Your task to perform on an android device: Search for lg ultragear on target.com, select the first entry, add it to the cart, then select checkout. Image 0: 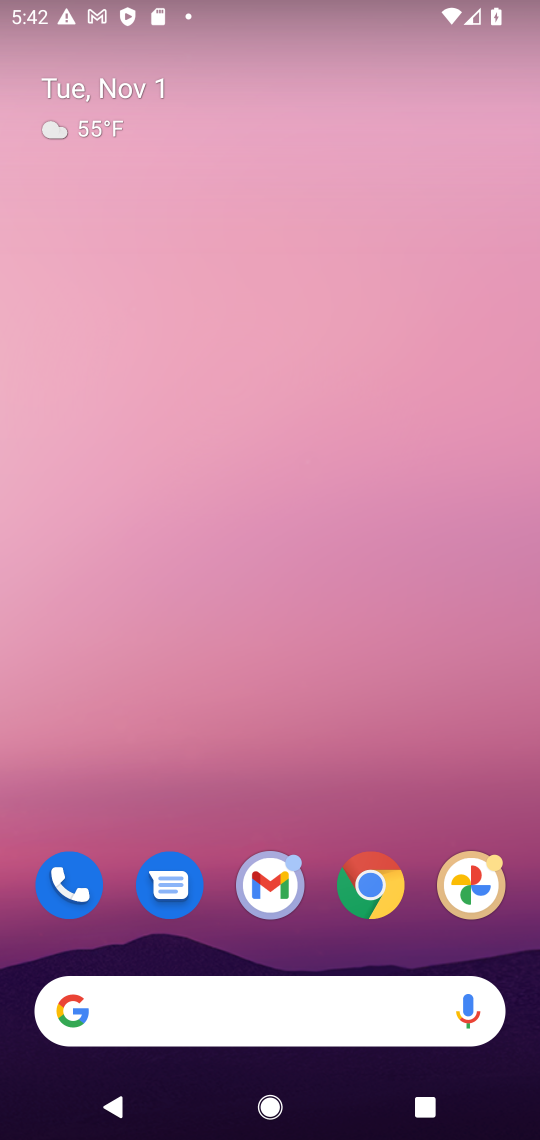
Step 0: click (370, 880)
Your task to perform on an android device: Search for lg ultragear on target.com, select the first entry, add it to the cart, then select checkout. Image 1: 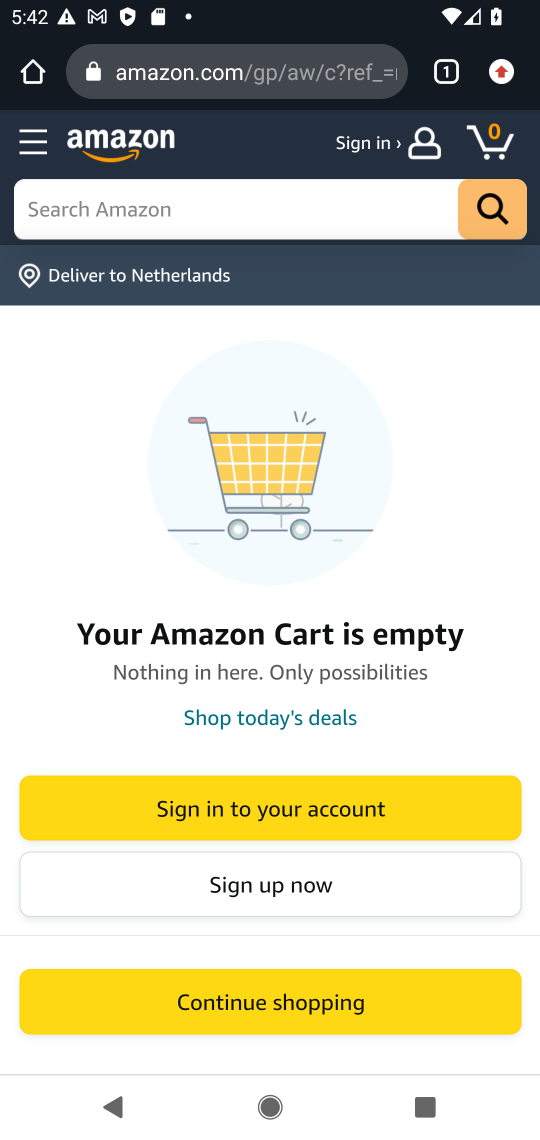
Step 1: click (258, 46)
Your task to perform on an android device: Search for lg ultragear on target.com, select the first entry, add it to the cart, then select checkout. Image 2: 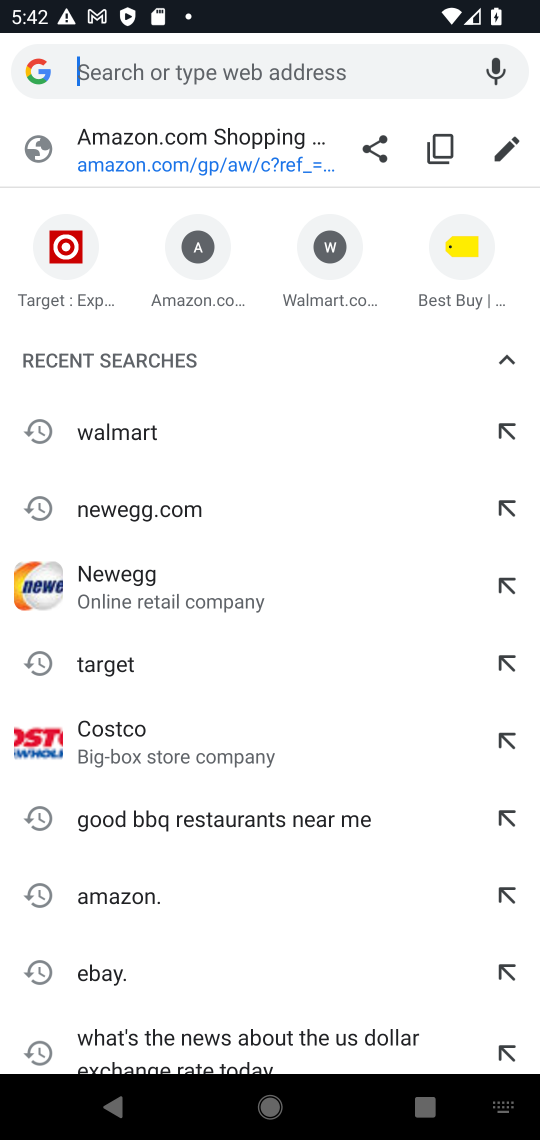
Step 2: type "target.com"
Your task to perform on an android device: Search for lg ultragear on target.com, select the first entry, add it to the cart, then select checkout. Image 3: 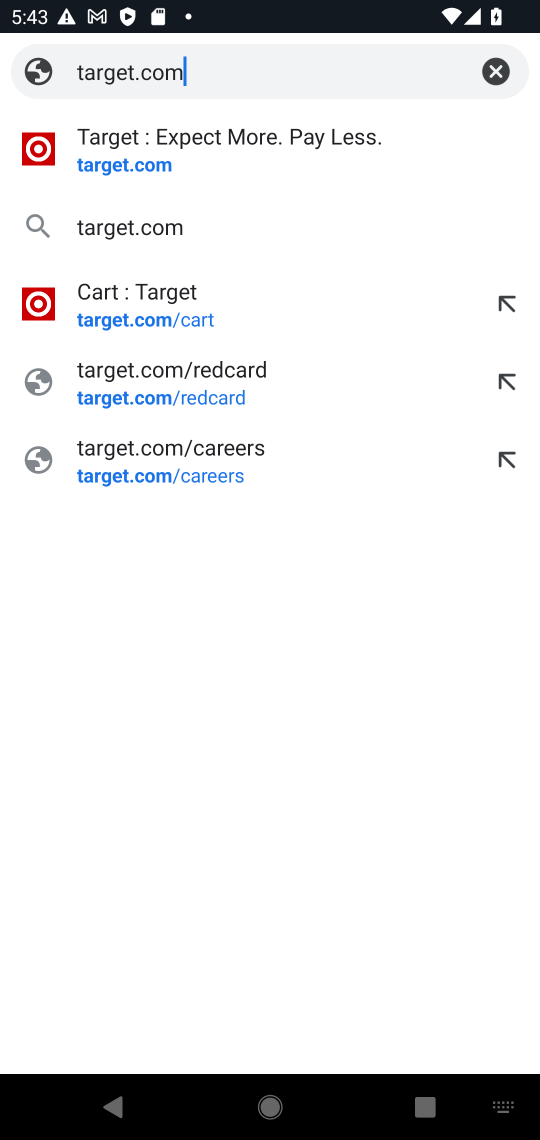
Step 3: click (108, 131)
Your task to perform on an android device: Search for lg ultragear on target.com, select the first entry, add it to the cart, then select checkout. Image 4: 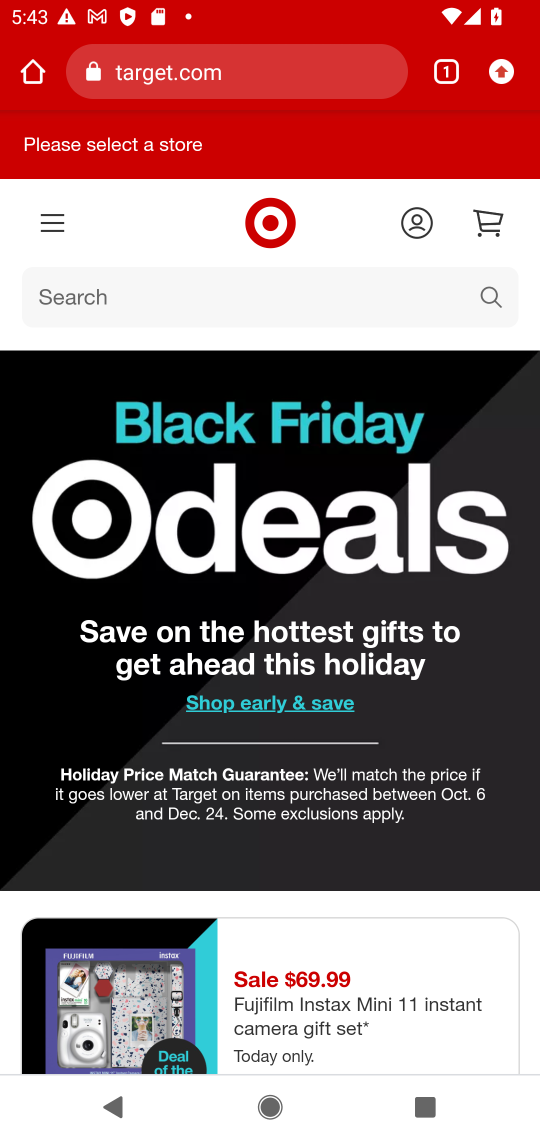
Step 4: click (133, 290)
Your task to perform on an android device: Search for lg ultragear on target.com, select the first entry, add it to the cart, then select checkout. Image 5: 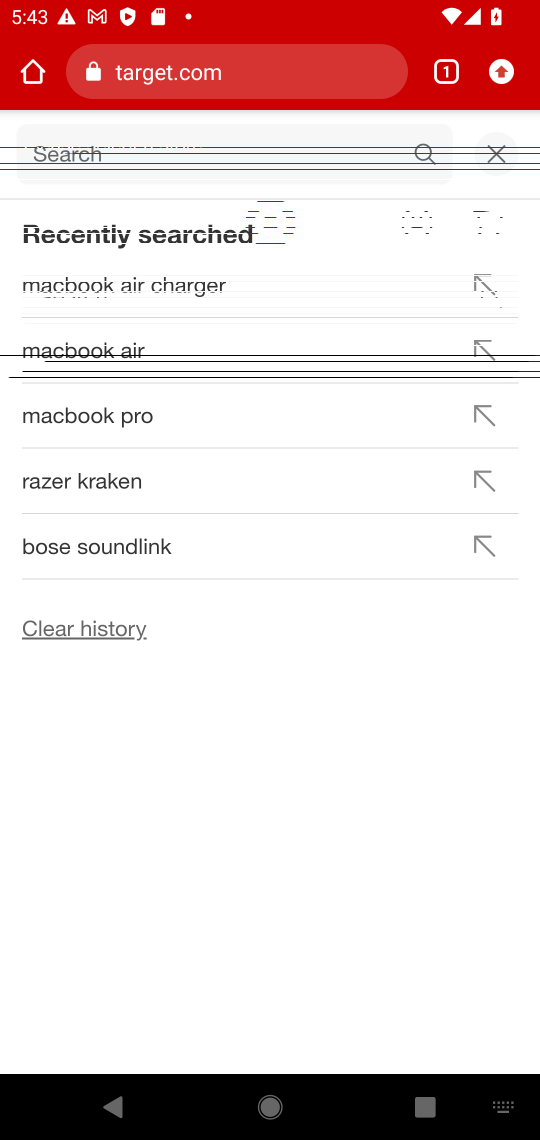
Step 5: type "lg ultragear"
Your task to perform on an android device: Search for lg ultragear on target.com, select the first entry, add it to the cart, then select checkout. Image 6: 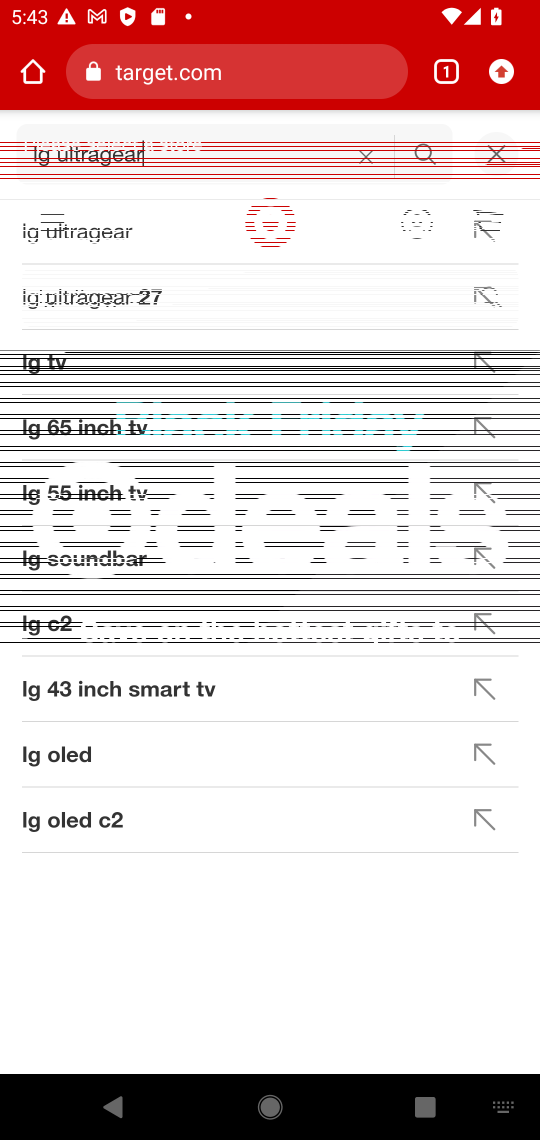
Step 6: click (79, 226)
Your task to perform on an android device: Search for lg ultragear on target.com, select the first entry, add it to the cart, then select checkout. Image 7: 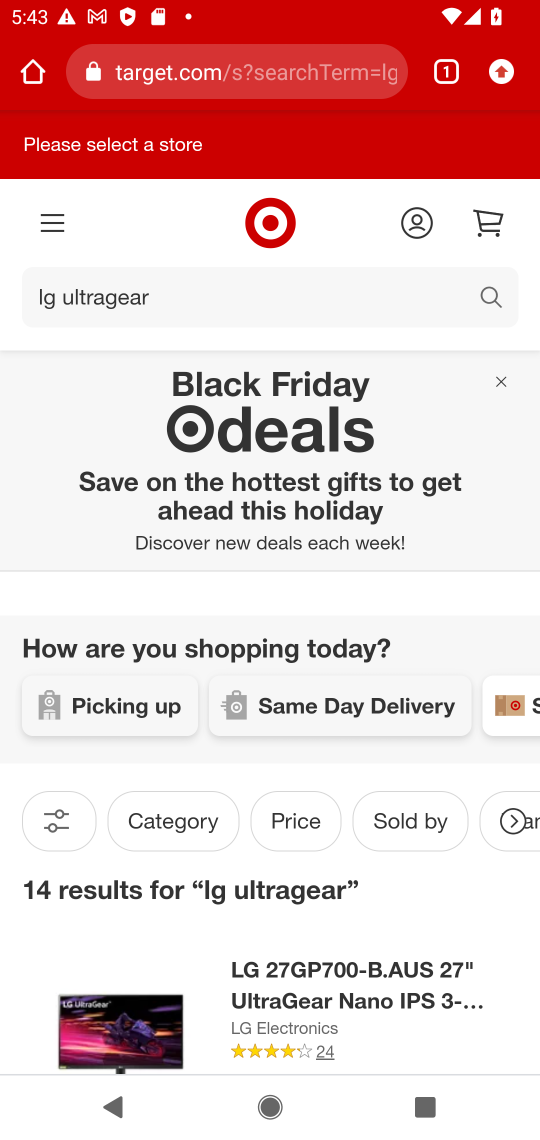
Step 7: drag from (302, 772) to (288, 188)
Your task to perform on an android device: Search for lg ultragear on target.com, select the first entry, add it to the cart, then select checkout. Image 8: 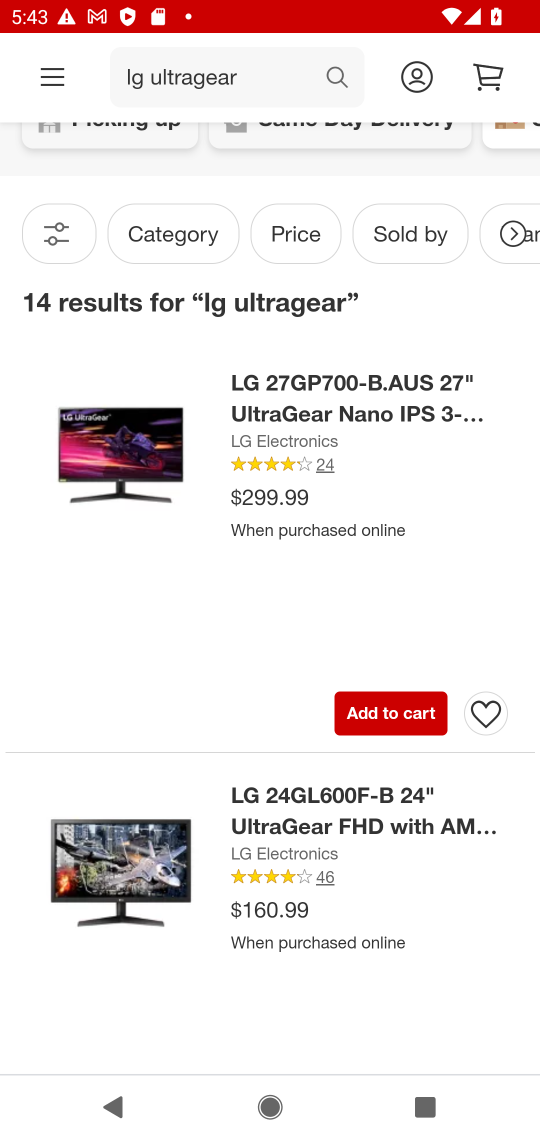
Step 8: click (299, 401)
Your task to perform on an android device: Search for lg ultragear on target.com, select the first entry, add it to the cart, then select checkout. Image 9: 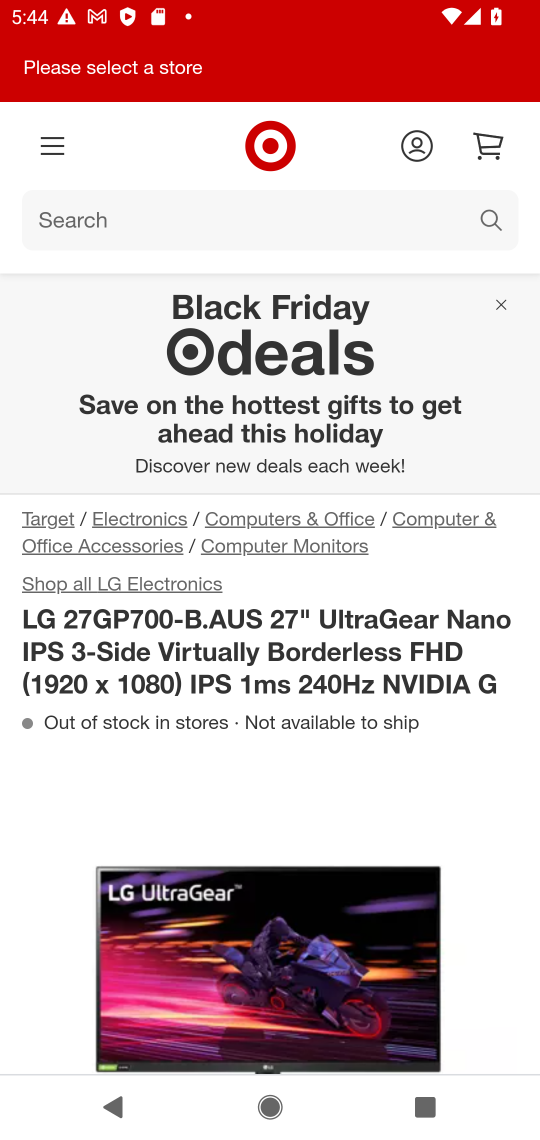
Step 9: drag from (326, 811) to (331, 154)
Your task to perform on an android device: Search for lg ultragear on target.com, select the first entry, add it to the cart, then select checkout. Image 10: 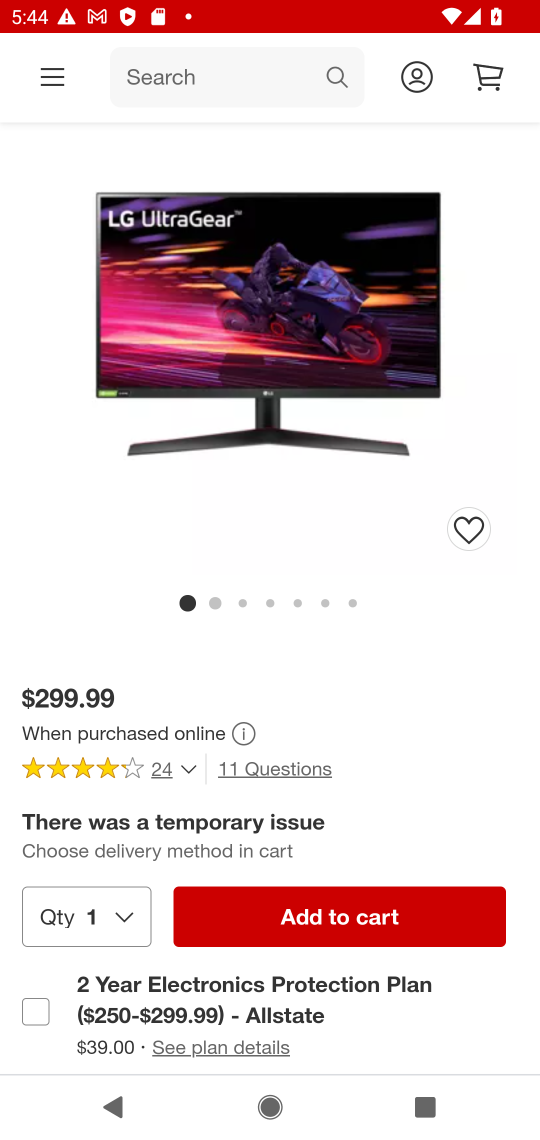
Step 10: drag from (335, 753) to (343, 449)
Your task to perform on an android device: Search for lg ultragear on target.com, select the first entry, add it to the cart, then select checkout. Image 11: 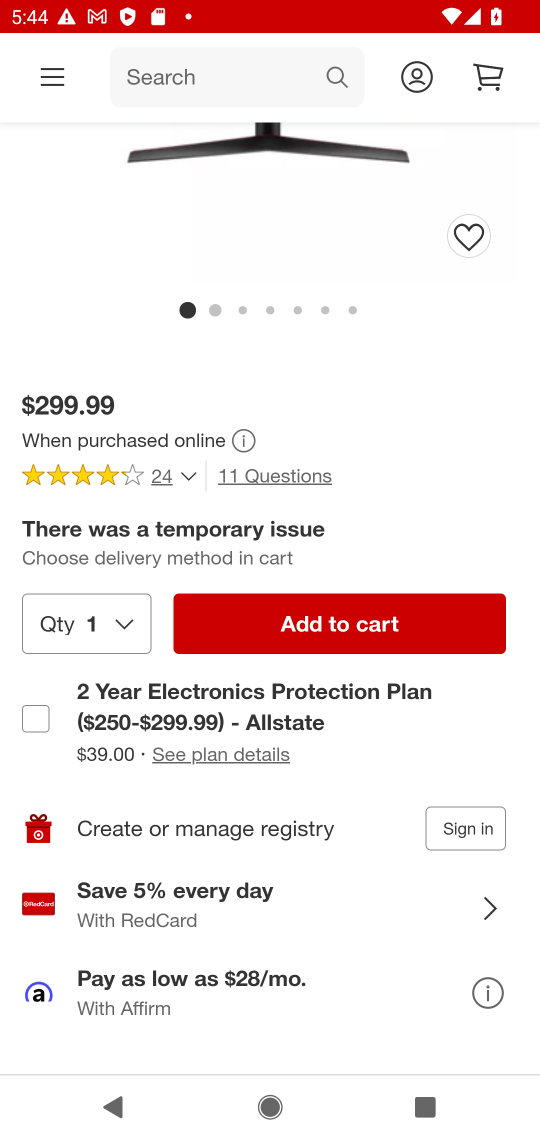
Step 11: click (327, 629)
Your task to perform on an android device: Search for lg ultragear on target.com, select the first entry, add it to the cart, then select checkout. Image 12: 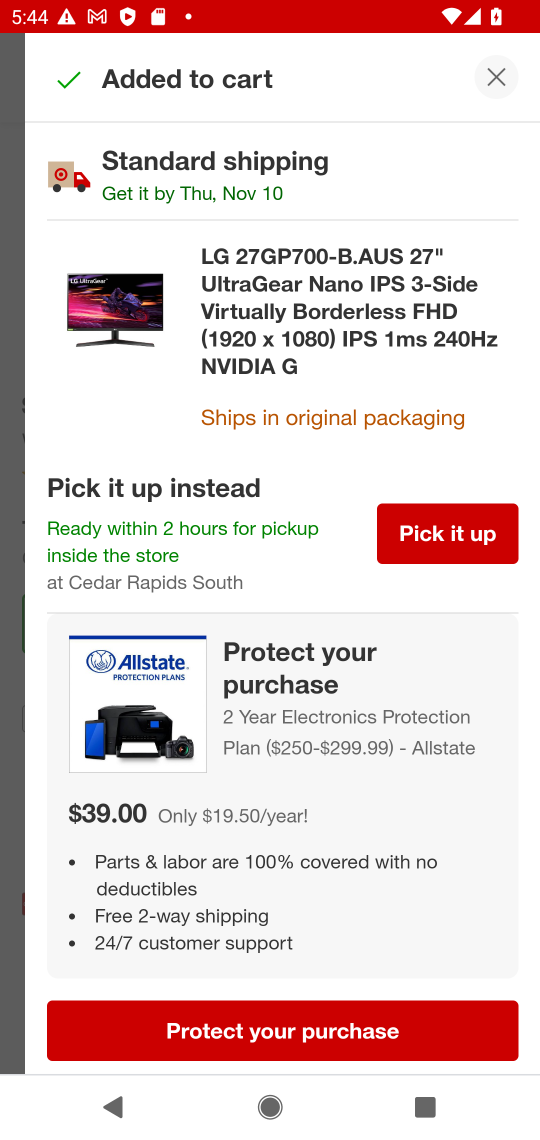
Step 12: drag from (387, 874) to (280, 1094)
Your task to perform on an android device: Search for lg ultragear on target.com, select the first entry, add it to the cart, then select checkout. Image 13: 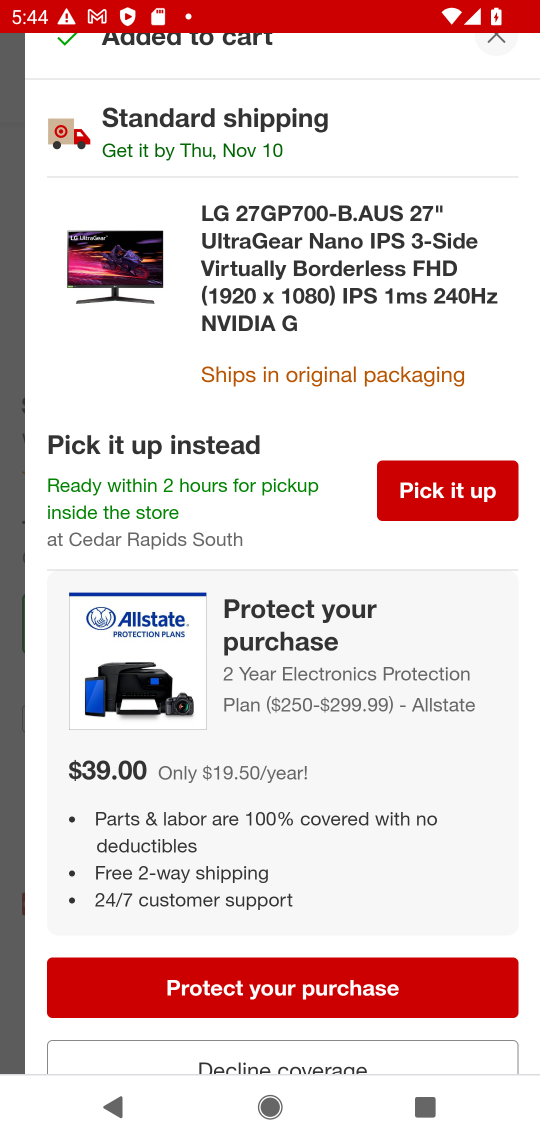
Step 13: drag from (309, 946) to (310, 309)
Your task to perform on an android device: Search for lg ultragear on target.com, select the first entry, add it to the cart, then select checkout. Image 14: 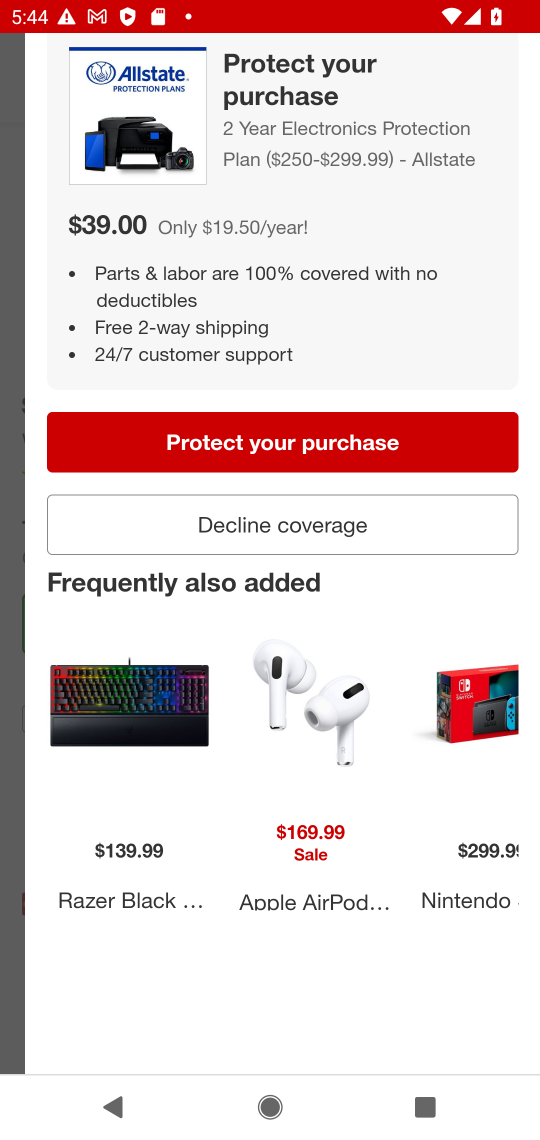
Step 14: drag from (314, 334) to (286, 790)
Your task to perform on an android device: Search for lg ultragear on target.com, select the first entry, add it to the cart, then select checkout. Image 15: 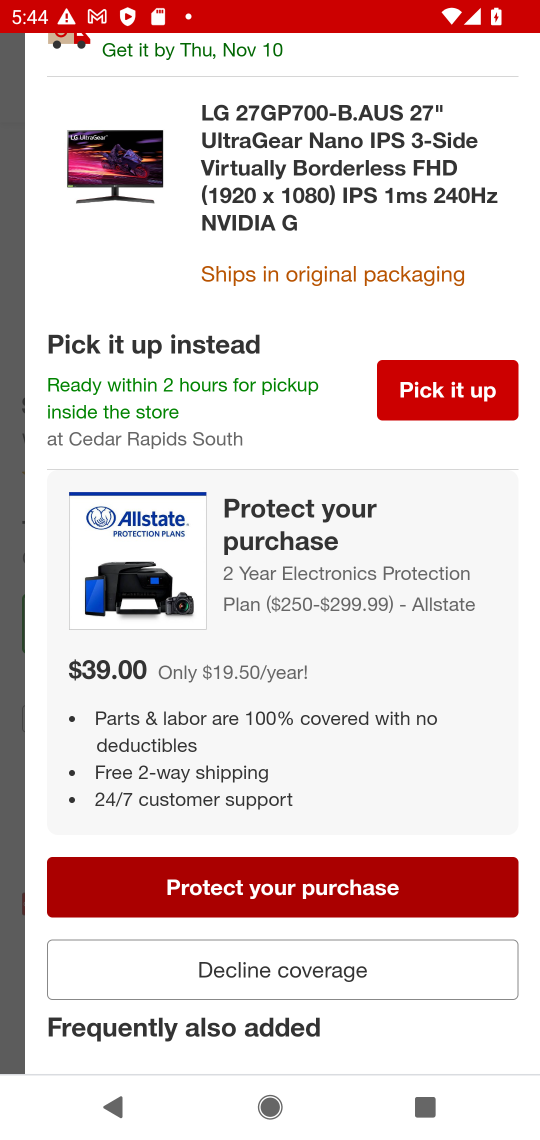
Step 15: drag from (310, 316) to (312, 681)
Your task to perform on an android device: Search for lg ultragear on target.com, select the first entry, add it to the cart, then select checkout. Image 16: 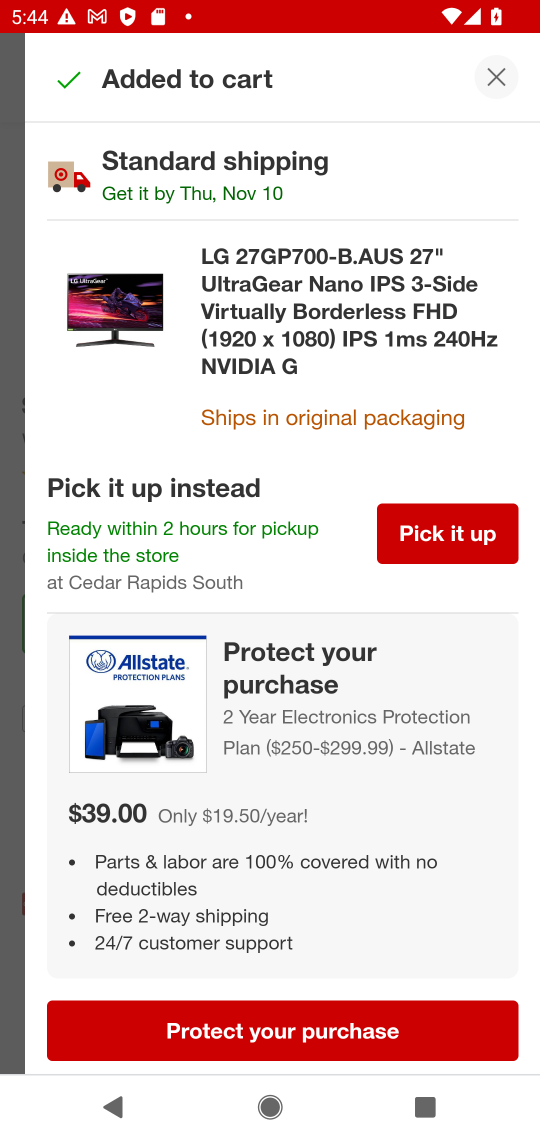
Step 16: click (455, 532)
Your task to perform on an android device: Search for lg ultragear on target.com, select the first entry, add it to the cart, then select checkout. Image 17: 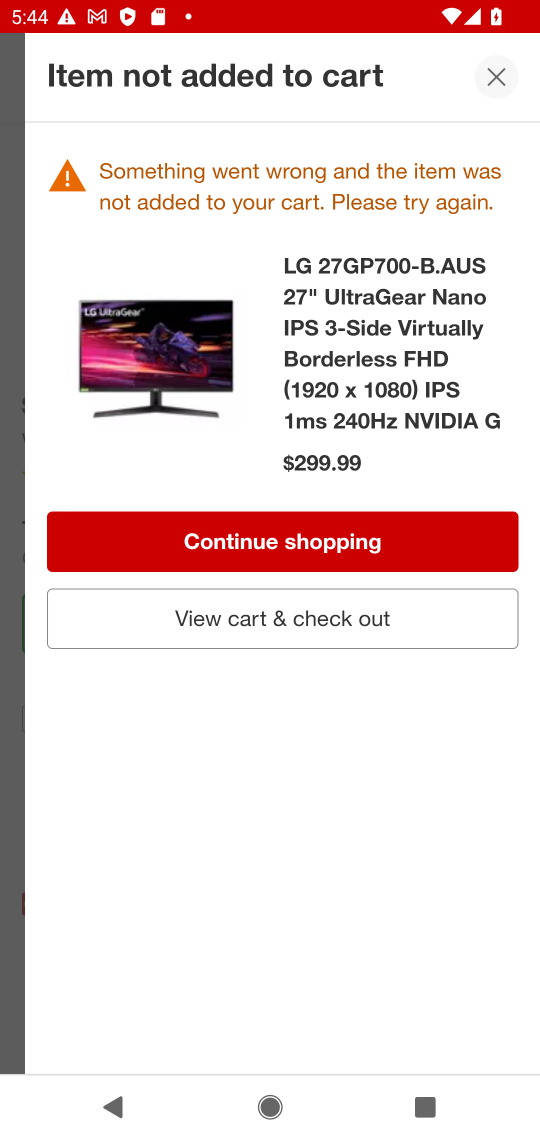
Step 17: click (298, 622)
Your task to perform on an android device: Search for lg ultragear on target.com, select the first entry, add it to the cart, then select checkout. Image 18: 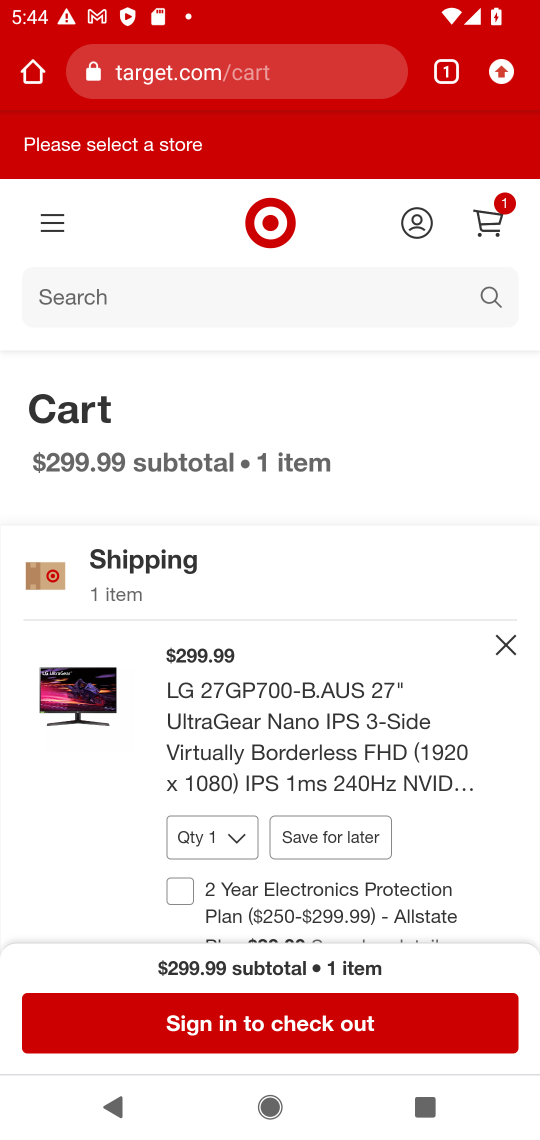
Step 18: click (288, 1007)
Your task to perform on an android device: Search for lg ultragear on target.com, select the first entry, add it to the cart, then select checkout. Image 19: 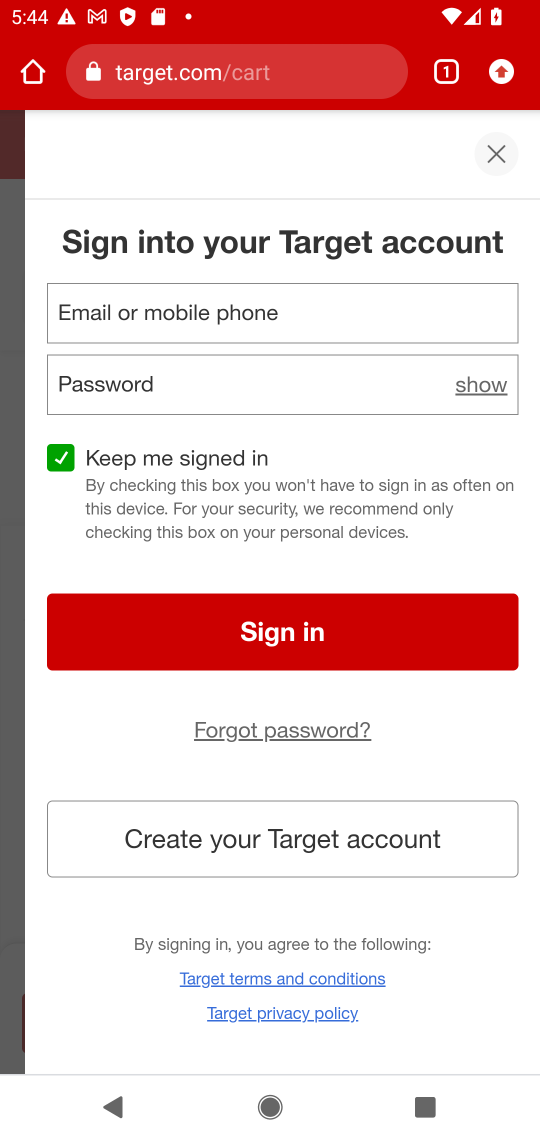
Step 19: task complete